Your task to perform on an android device: open chrome privacy settings Image 0: 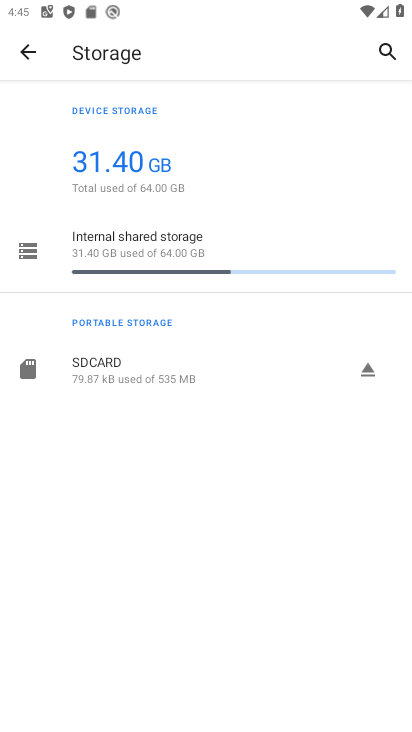
Step 0: press back button
Your task to perform on an android device: open chrome privacy settings Image 1: 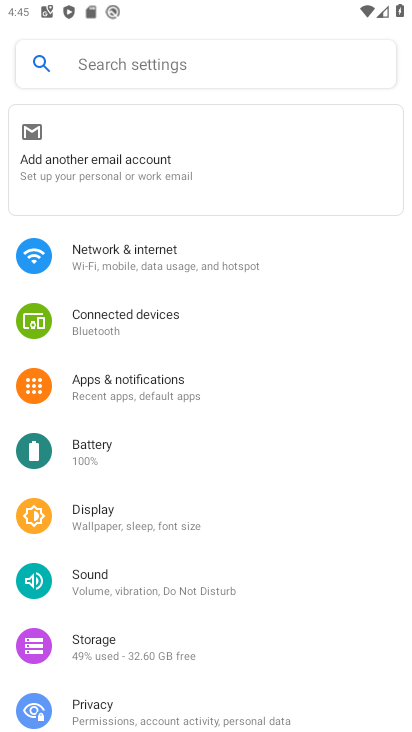
Step 1: press back button
Your task to perform on an android device: open chrome privacy settings Image 2: 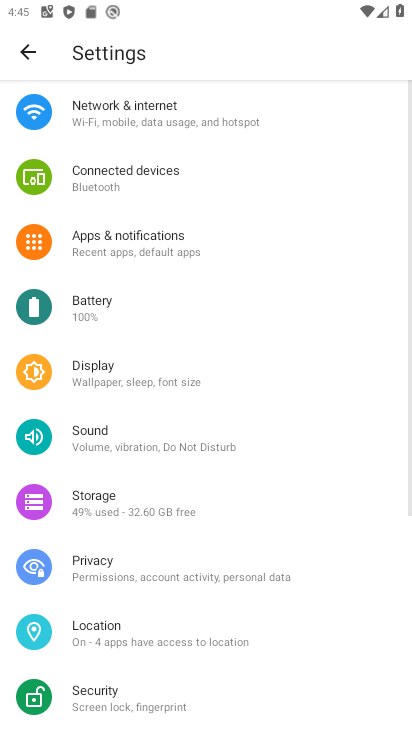
Step 2: press back button
Your task to perform on an android device: open chrome privacy settings Image 3: 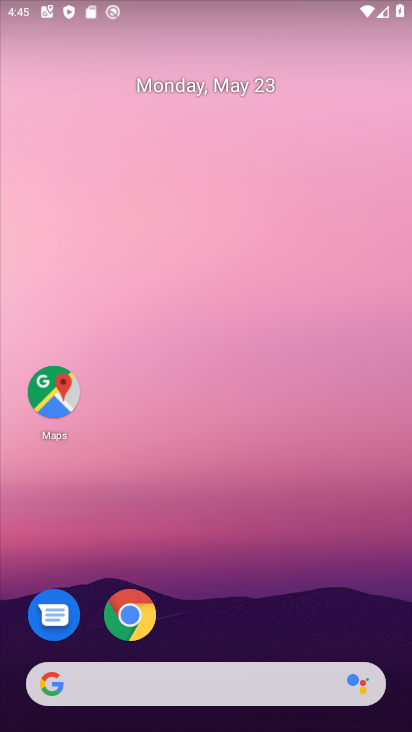
Step 3: click (152, 603)
Your task to perform on an android device: open chrome privacy settings Image 4: 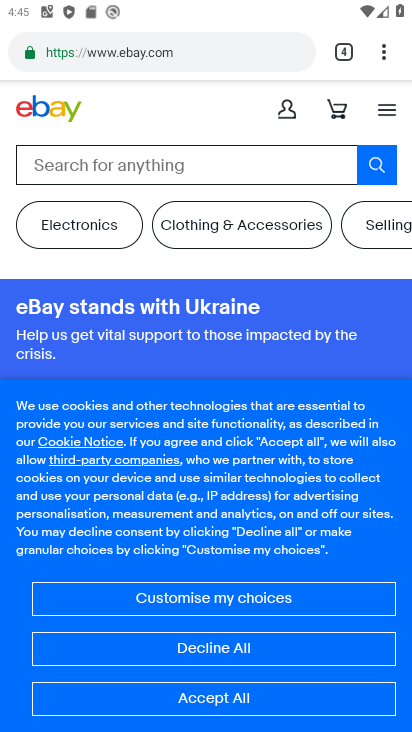
Step 4: drag from (388, 46) to (210, 634)
Your task to perform on an android device: open chrome privacy settings Image 5: 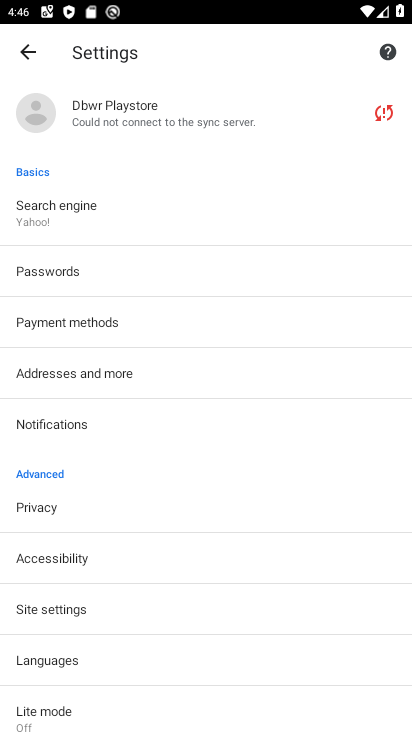
Step 5: click (51, 516)
Your task to perform on an android device: open chrome privacy settings Image 6: 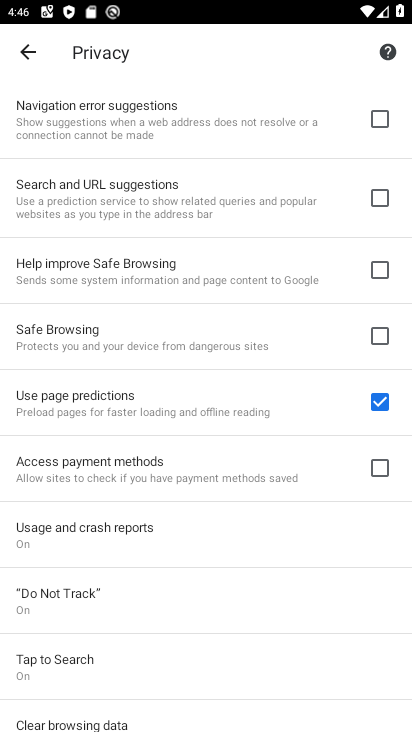
Step 6: task complete